Your task to perform on an android device: open app "NewsBreak: Local News & Alerts" Image 0: 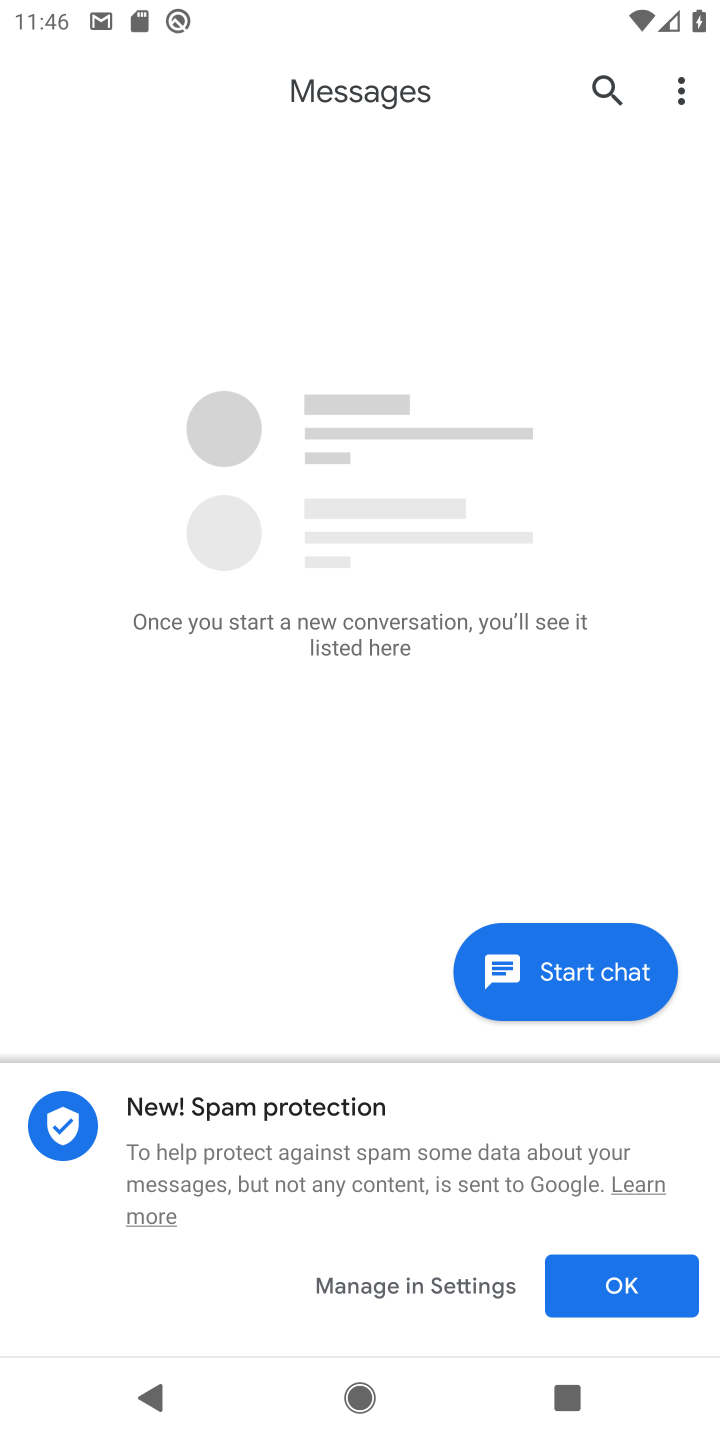
Step 0: press home button
Your task to perform on an android device: open app "NewsBreak: Local News & Alerts" Image 1: 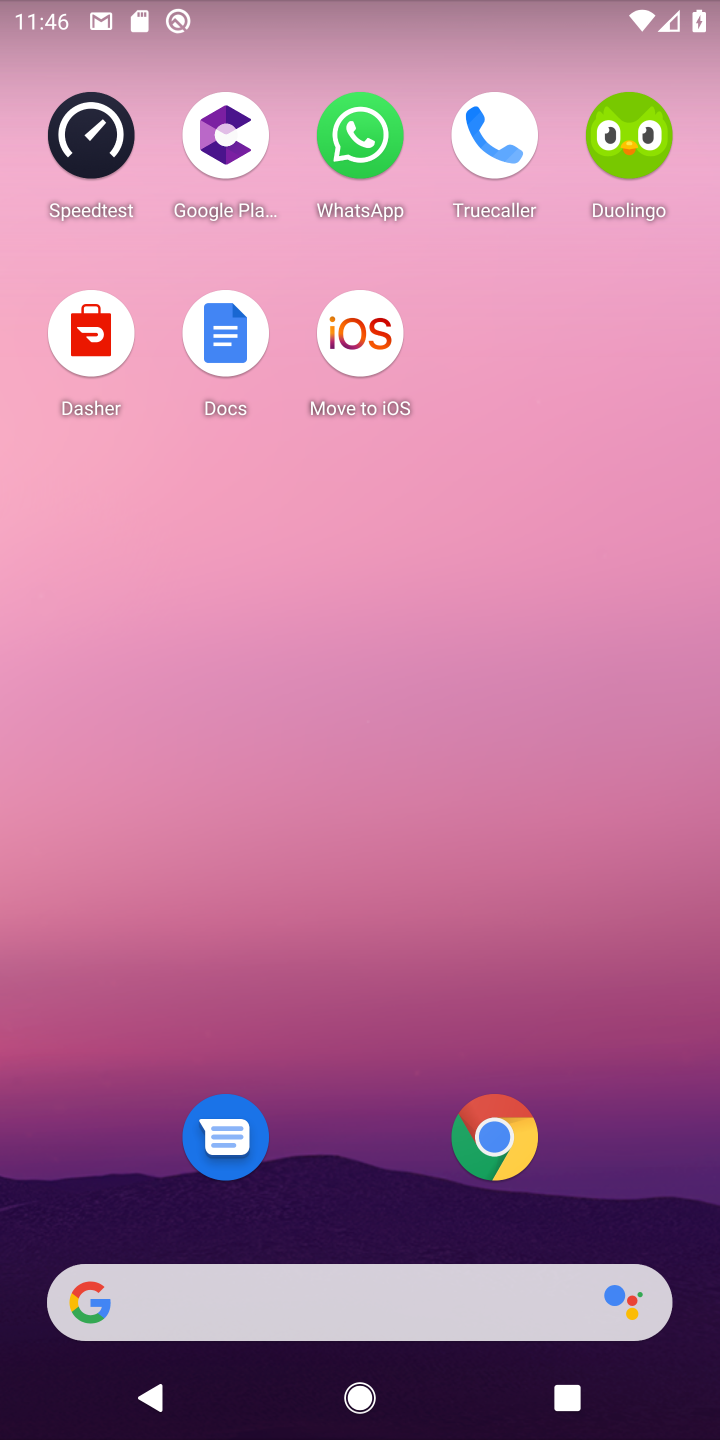
Step 1: drag from (647, 1102) to (552, 176)
Your task to perform on an android device: open app "NewsBreak: Local News & Alerts" Image 2: 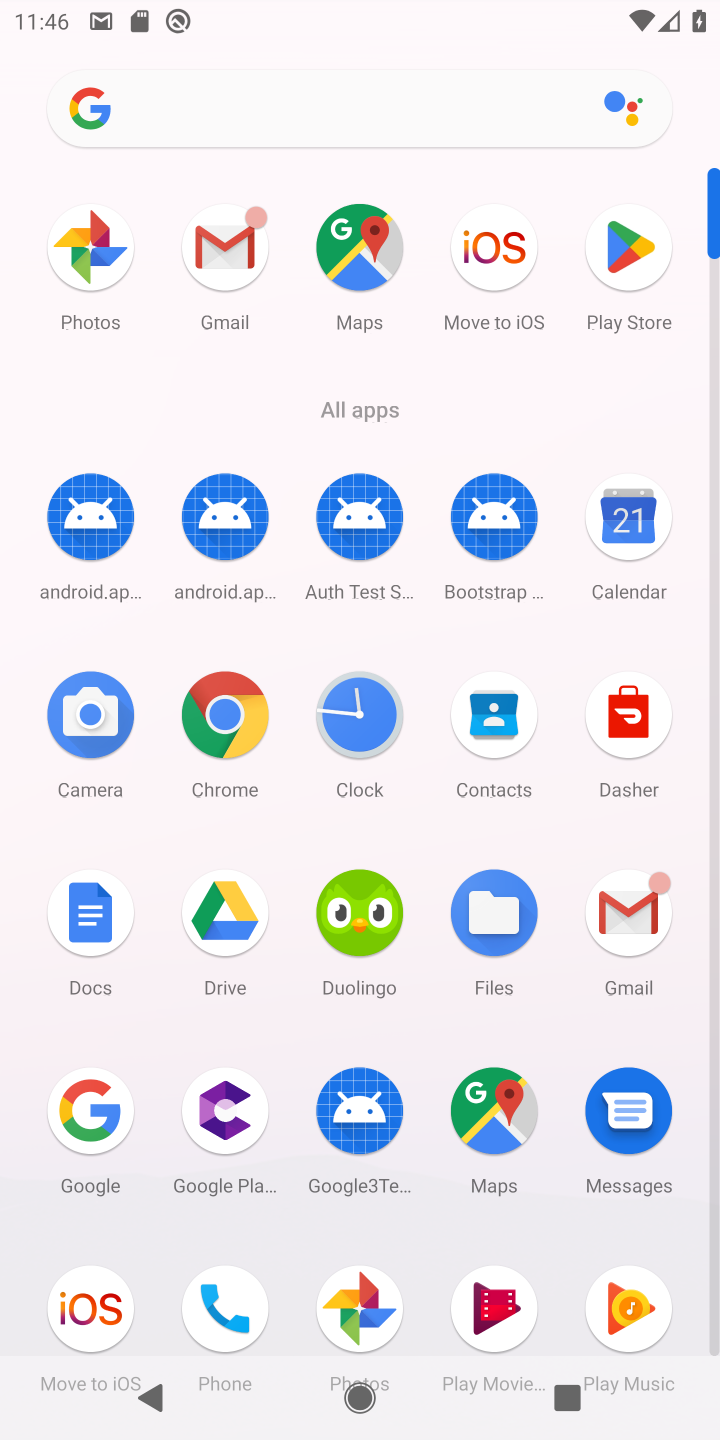
Step 2: drag from (556, 1248) to (542, 604)
Your task to perform on an android device: open app "NewsBreak: Local News & Alerts" Image 3: 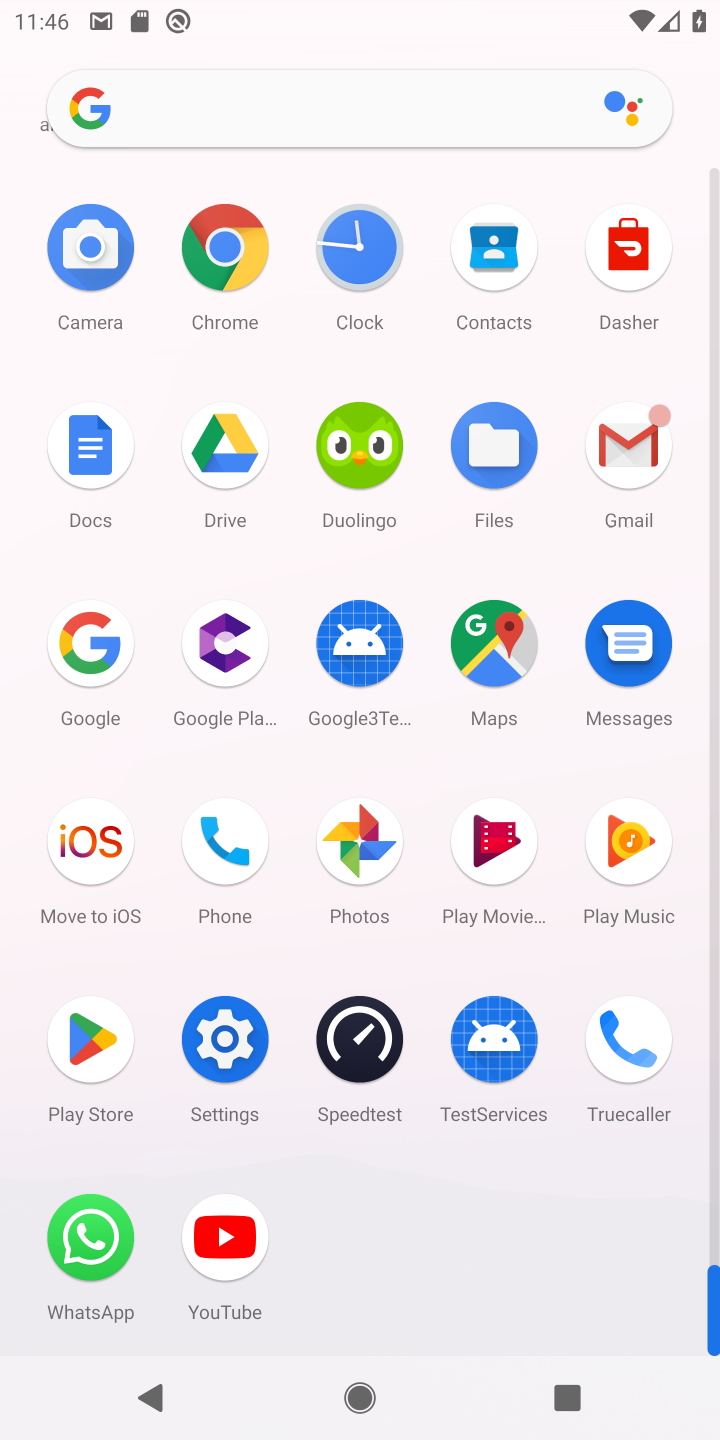
Step 3: click (93, 1040)
Your task to perform on an android device: open app "NewsBreak: Local News & Alerts" Image 4: 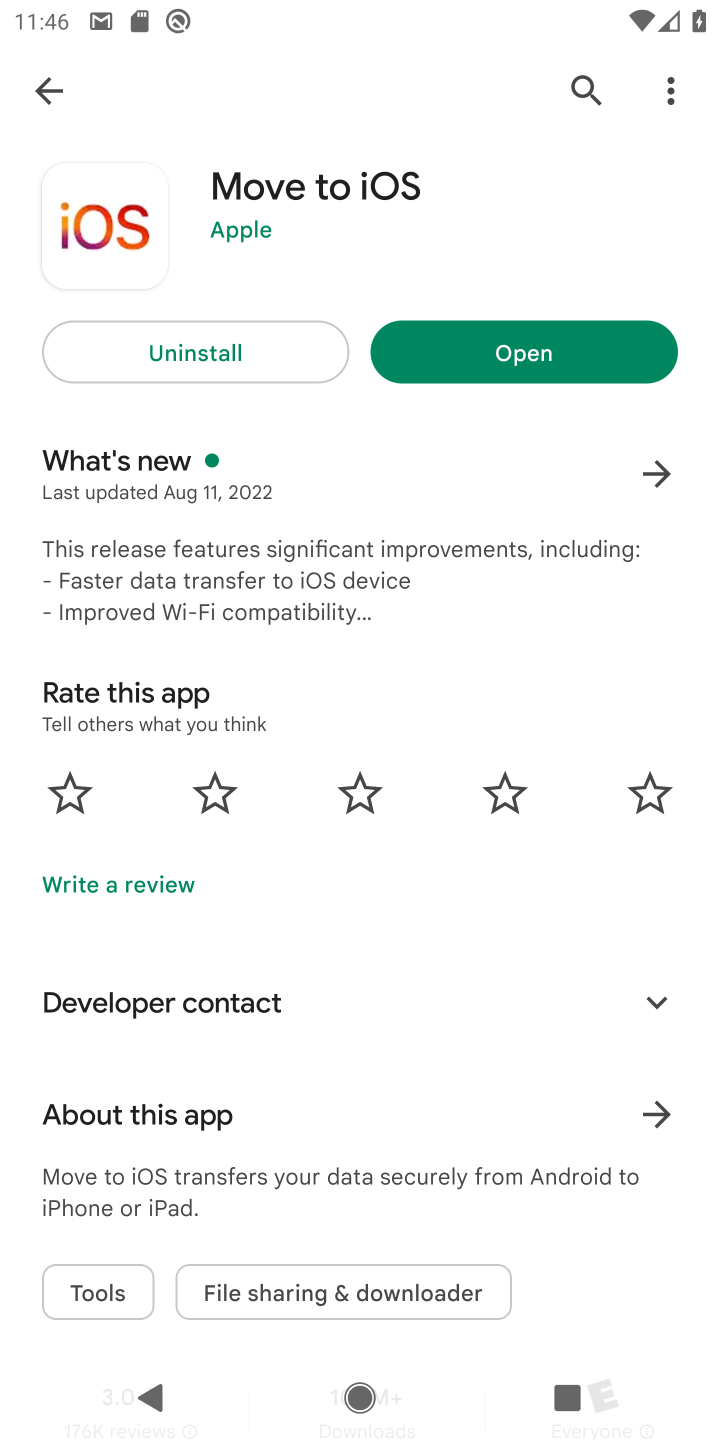
Step 4: click (578, 89)
Your task to perform on an android device: open app "NewsBreak: Local News & Alerts" Image 5: 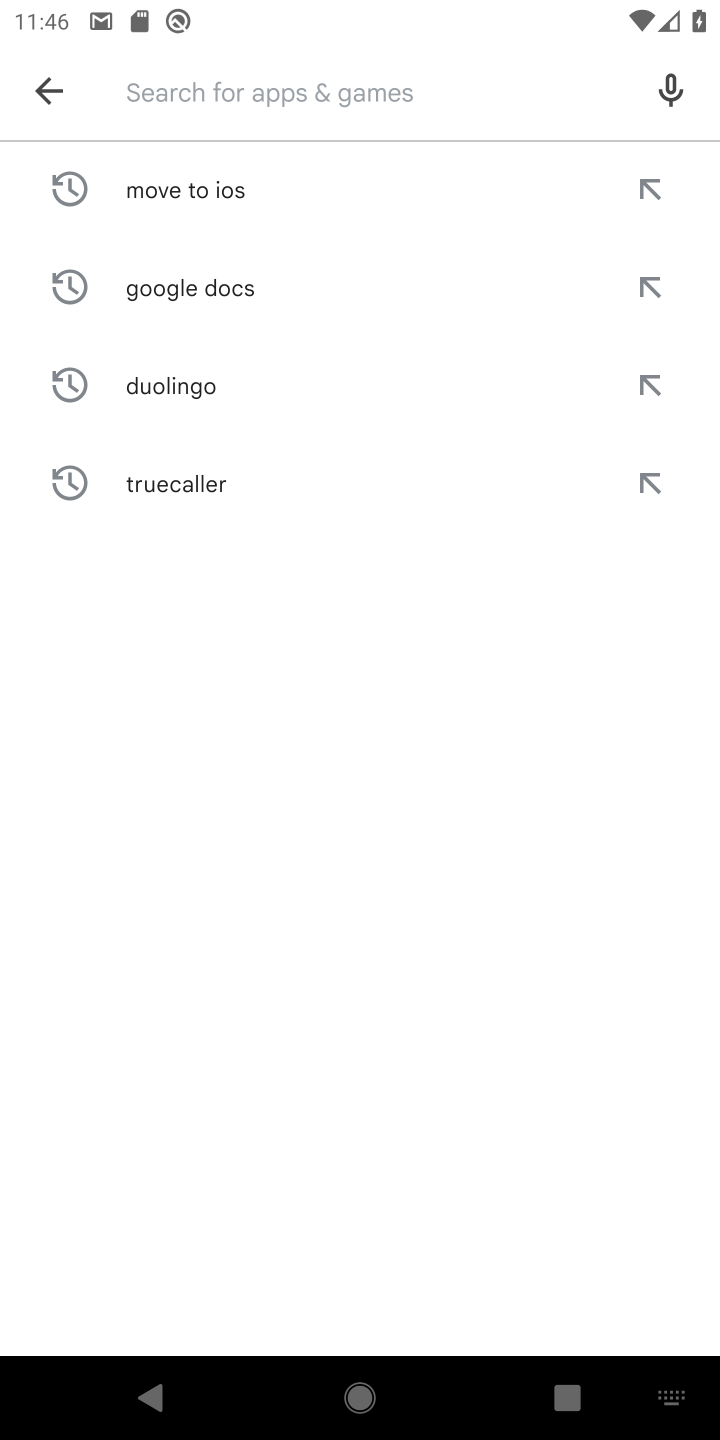
Step 5: type "News Break: Local News & Alerts"
Your task to perform on an android device: open app "NewsBreak: Local News & Alerts" Image 6: 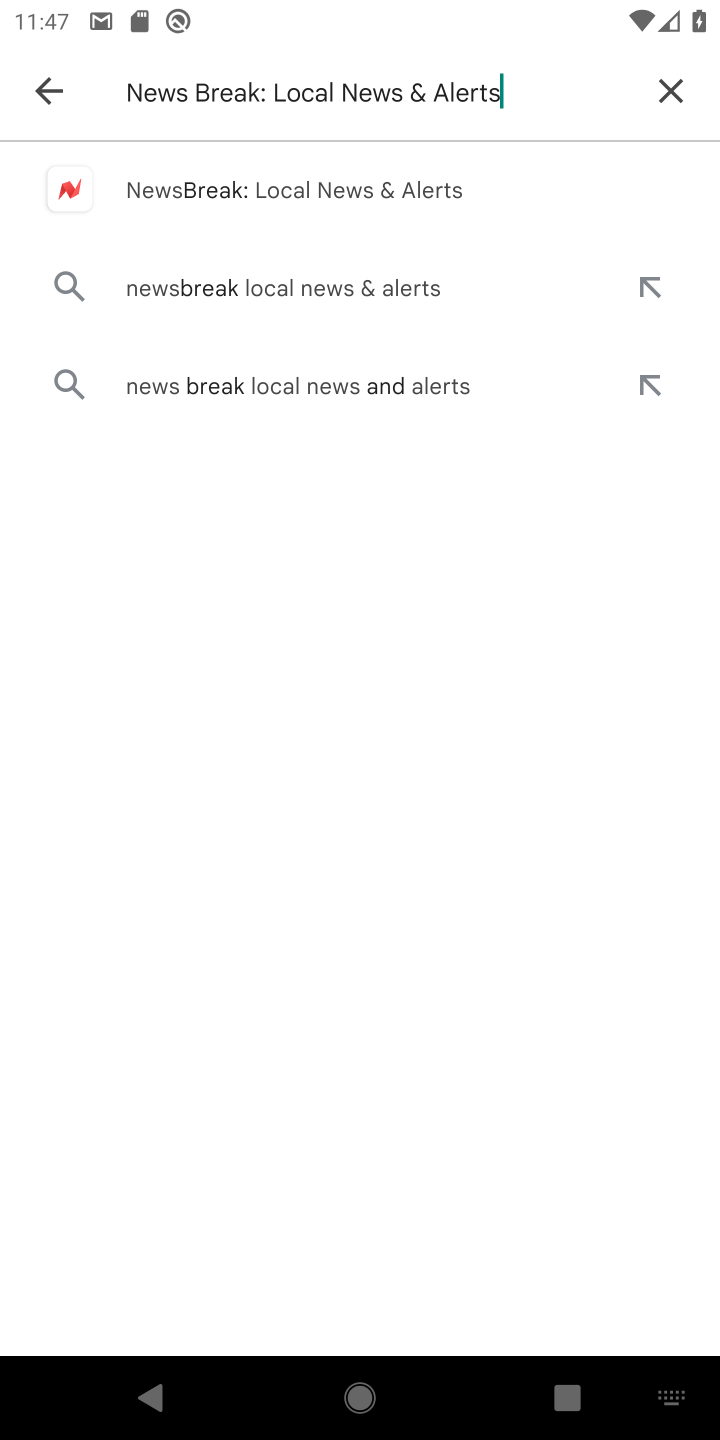
Step 6: click (204, 186)
Your task to perform on an android device: open app "NewsBreak: Local News & Alerts" Image 7: 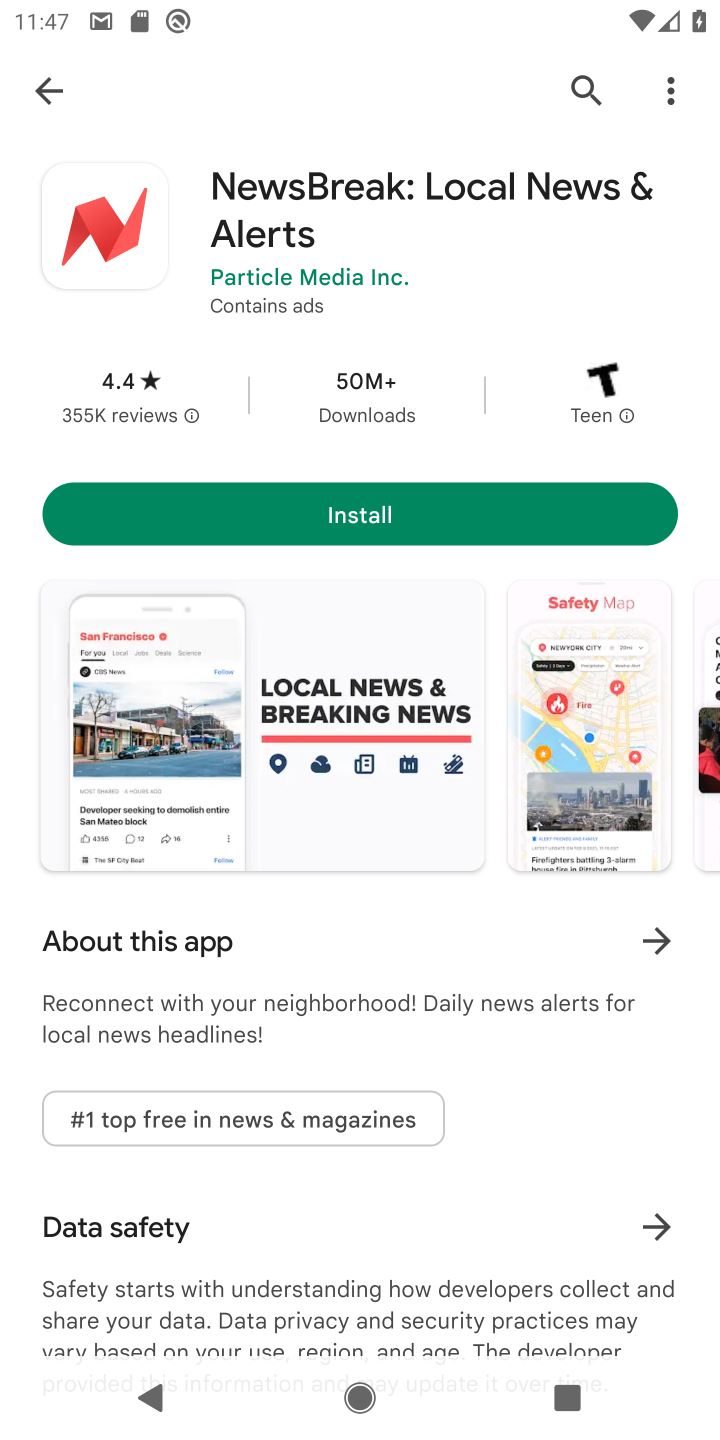
Step 7: task complete